Your task to perform on an android device: What's on the menu at Olive Garden? Image 0: 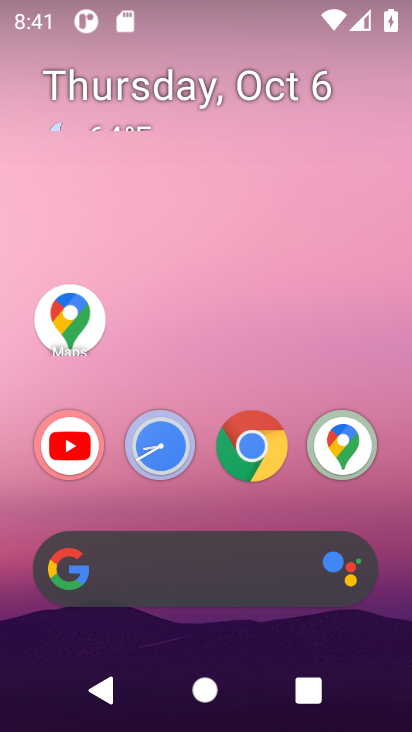
Step 0: click (181, 573)
Your task to perform on an android device: What's on the menu at Olive Garden? Image 1: 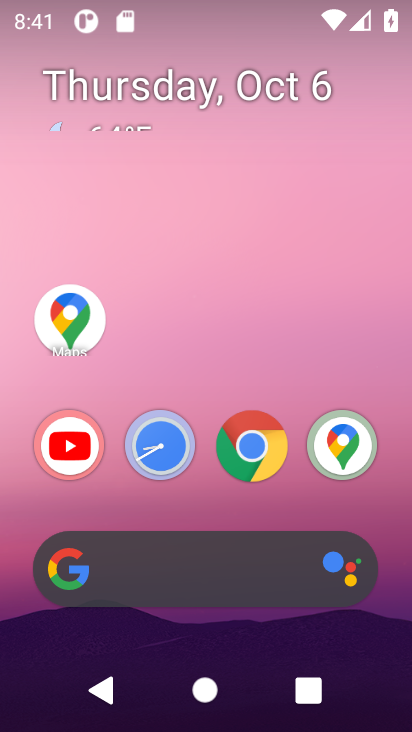
Step 1: click (181, 573)
Your task to perform on an android device: What's on the menu at Olive Garden? Image 2: 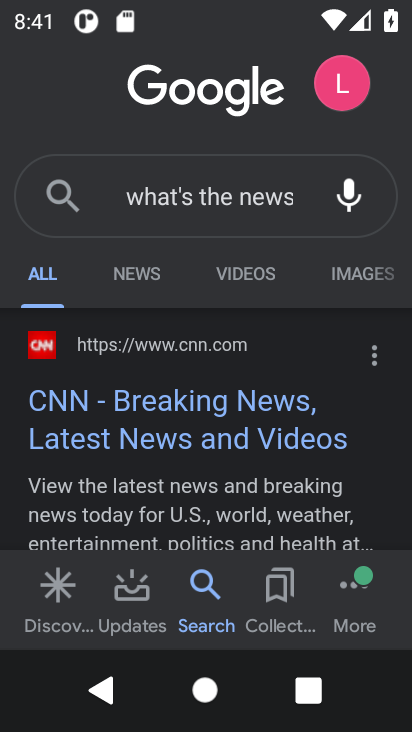
Step 2: click (243, 183)
Your task to perform on an android device: What's on the menu at Olive Garden? Image 3: 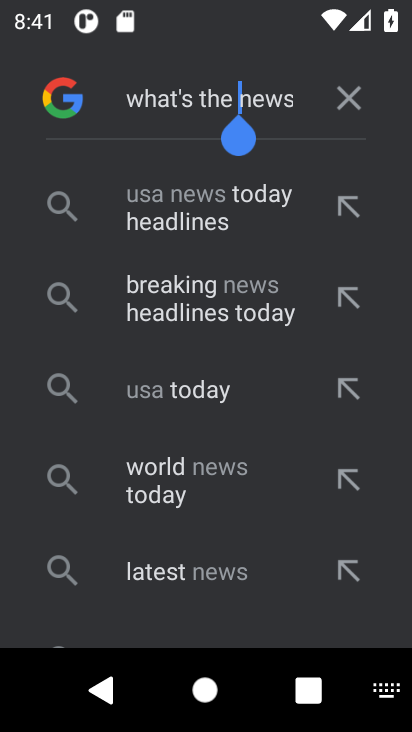
Step 3: click (349, 97)
Your task to perform on an android device: What's on the menu at Olive Garden? Image 4: 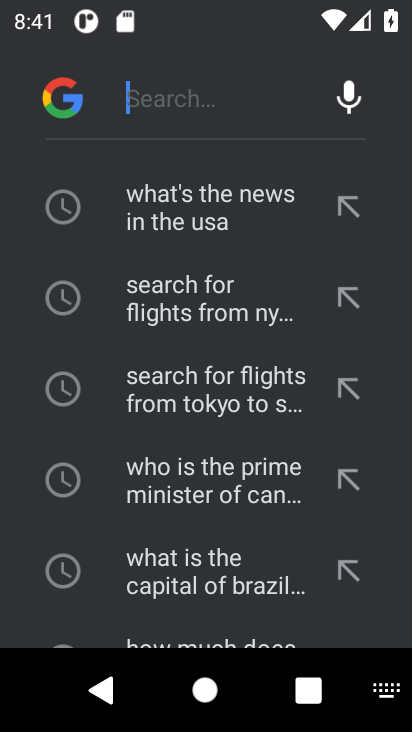
Step 4: type "What's on the menu at Olive Garden?"
Your task to perform on an android device: What's on the menu at Olive Garden? Image 5: 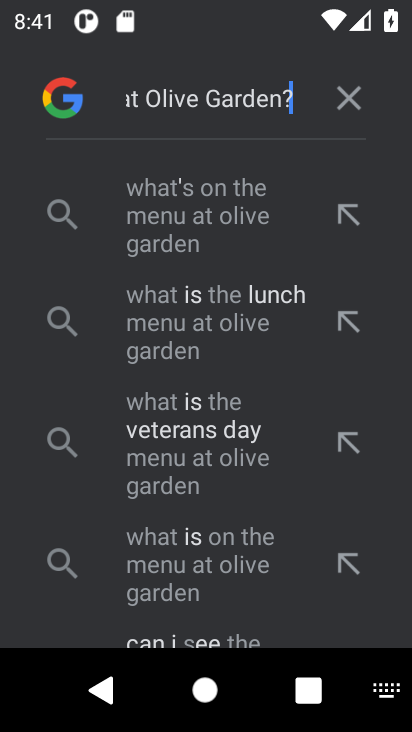
Step 5: click (218, 177)
Your task to perform on an android device: What's on the menu at Olive Garden? Image 6: 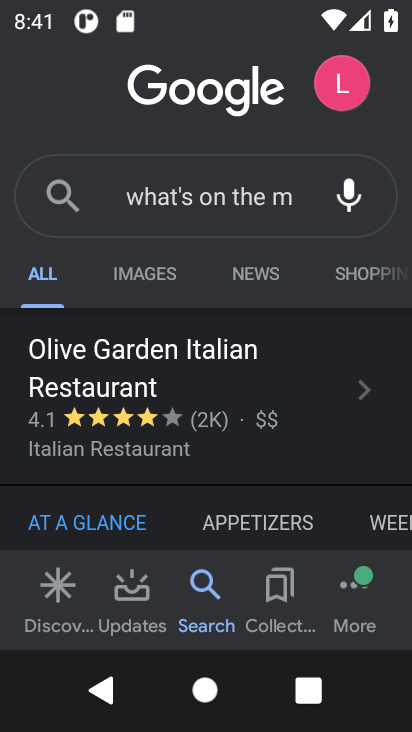
Step 6: task complete